Your task to perform on an android device: Go to eBay Image 0: 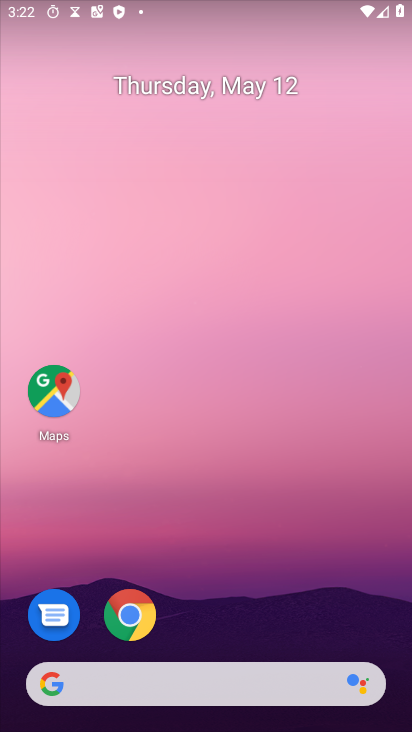
Step 0: click (145, 629)
Your task to perform on an android device: Go to eBay Image 1: 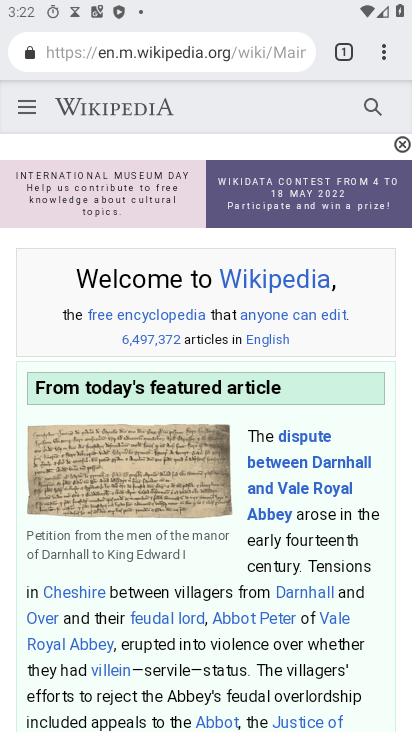
Step 1: click (341, 56)
Your task to perform on an android device: Go to eBay Image 2: 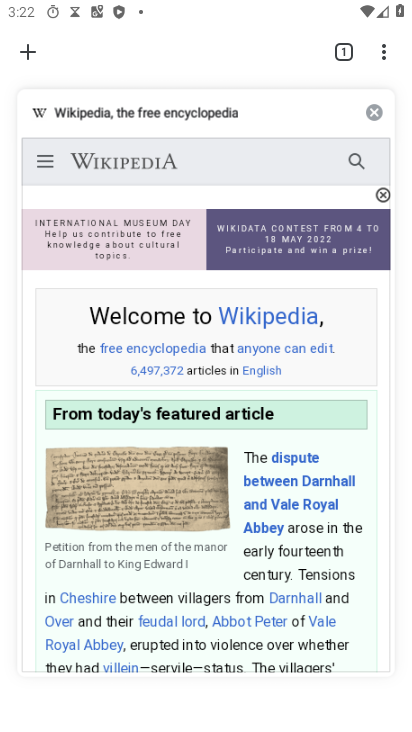
Step 2: click (382, 113)
Your task to perform on an android device: Go to eBay Image 3: 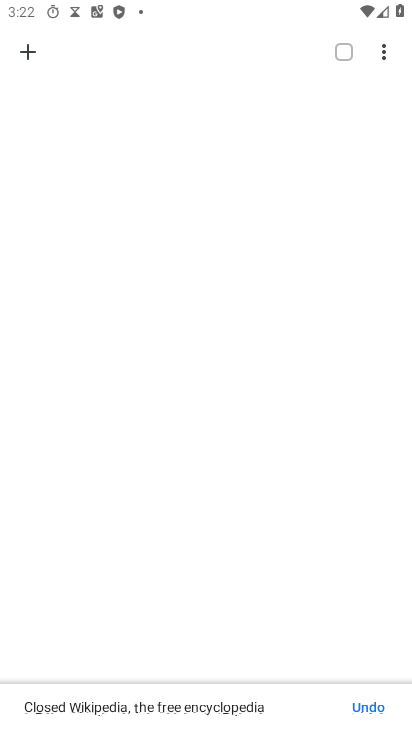
Step 3: click (24, 47)
Your task to perform on an android device: Go to eBay Image 4: 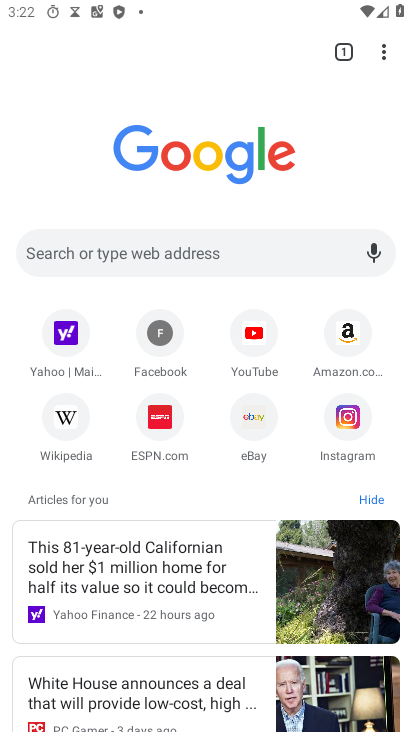
Step 4: click (244, 408)
Your task to perform on an android device: Go to eBay Image 5: 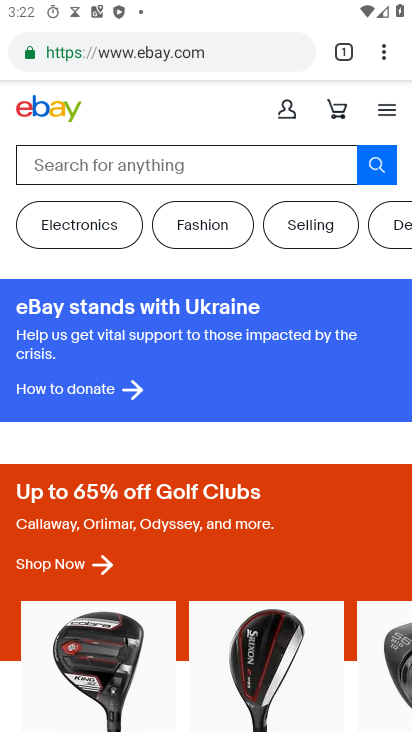
Step 5: task complete